Your task to perform on an android device: set an alarm Image 0: 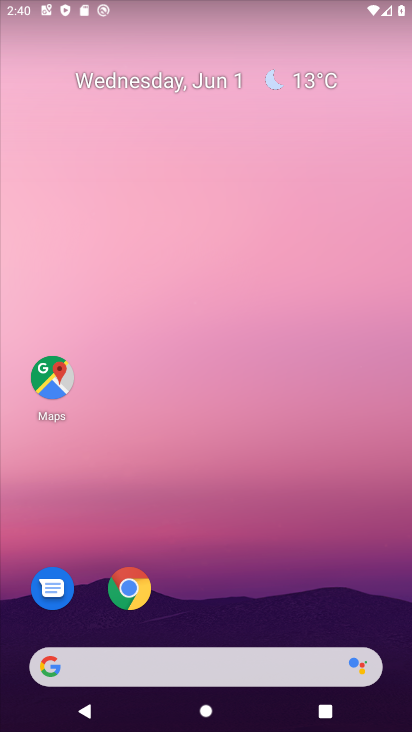
Step 0: drag from (250, 579) to (240, 89)
Your task to perform on an android device: set an alarm Image 1: 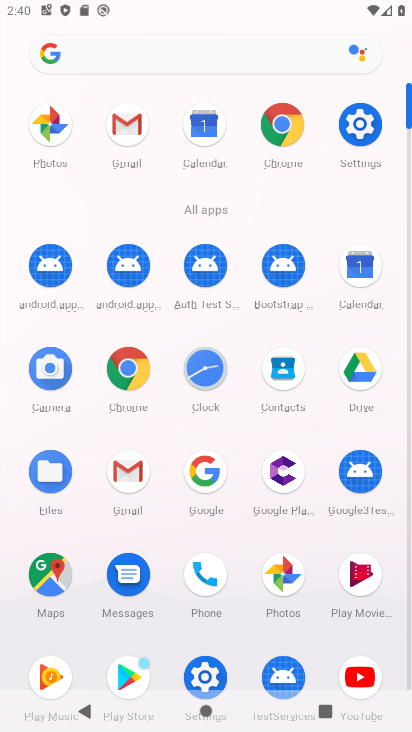
Step 1: click (201, 360)
Your task to perform on an android device: set an alarm Image 2: 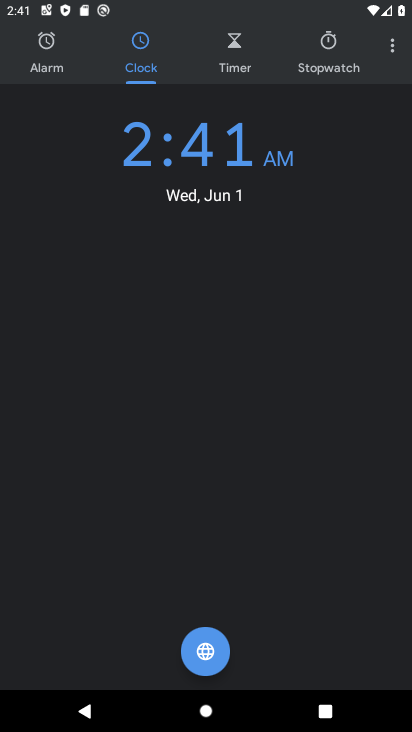
Step 2: click (45, 49)
Your task to perform on an android device: set an alarm Image 3: 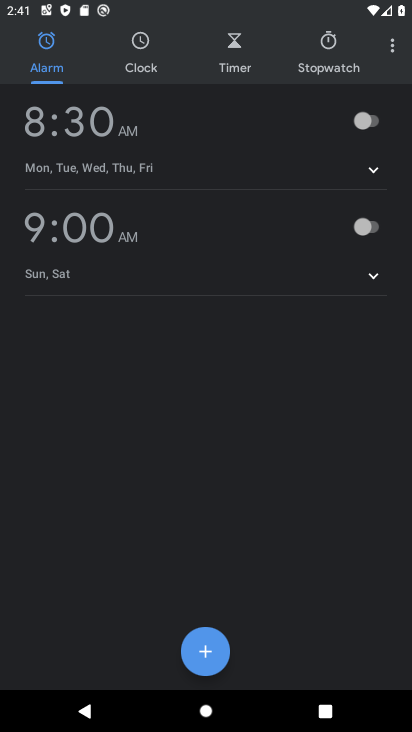
Step 3: click (363, 121)
Your task to perform on an android device: set an alarm Image 4: 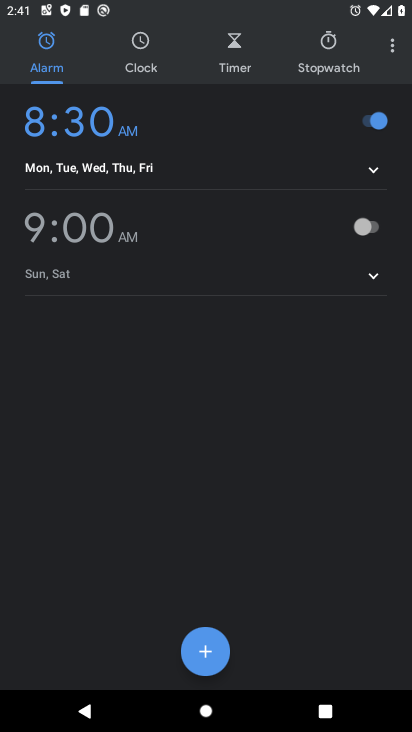
Step 4: task complete